Your task to perform on an android device: Open sound settings Image 0: 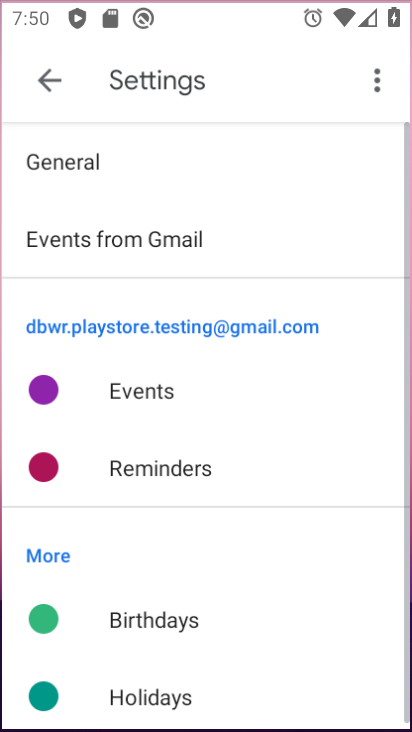
Step 0: drag from (291, 665) to (343, 218)
Your task to perform on an android device: Open sound settings Image 1: 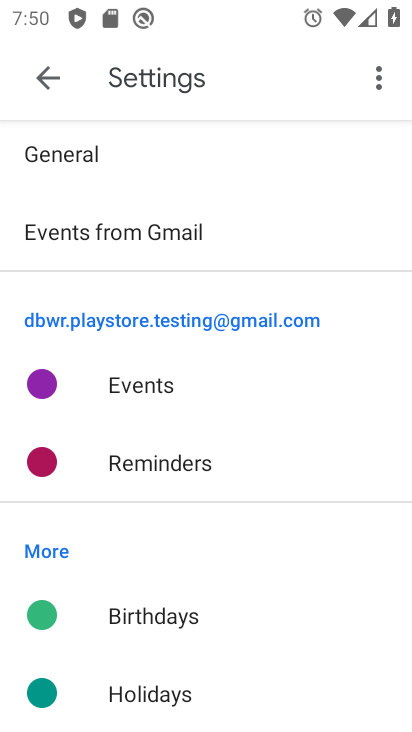
Step 1: click (54, 82)
Your task to perform on an android device: Open sound settings Image 2: 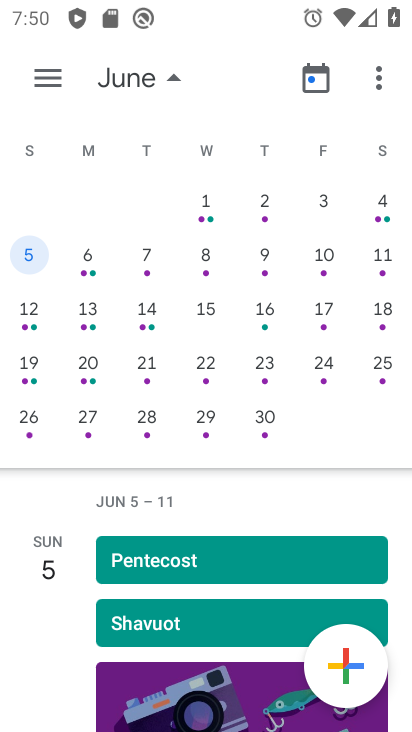
Step 2: press home button
Your task to perform on an android device: Open sound settings Image 3: 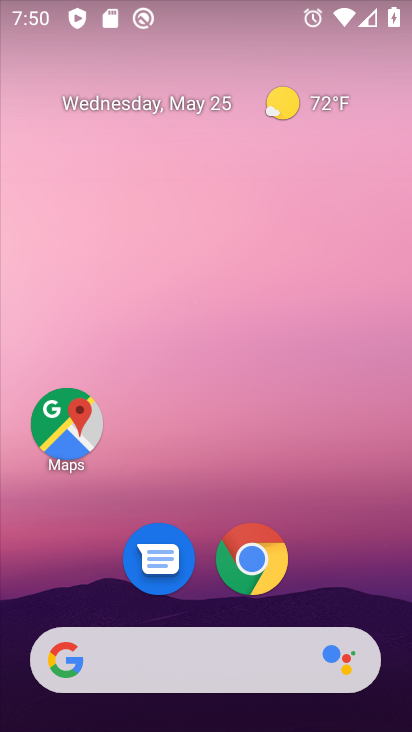
Step 3: drag from (274, 606) to (356, 45)
Your task to perform on an android device: Open sound settings Image 4: 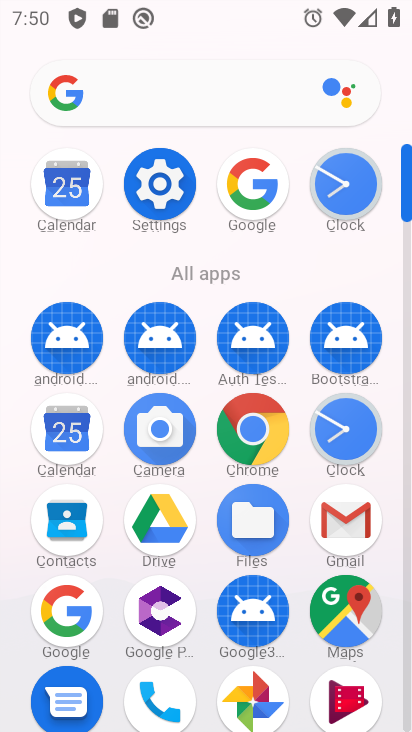
Step 4: click (168, 191)
Your task to perform on an android device: Open sound settings Image 5: 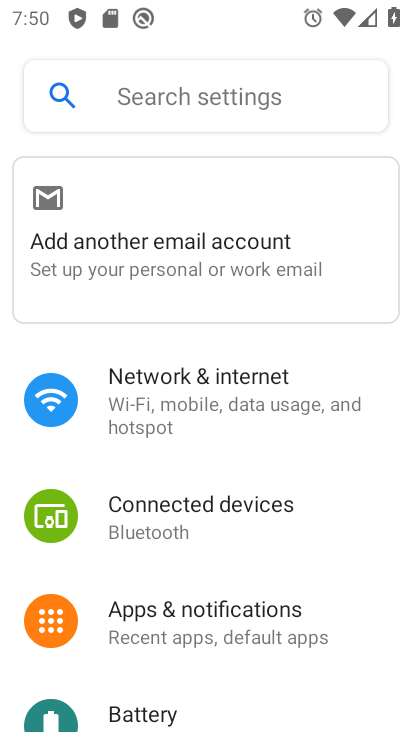
Step 5: drag from (218, 592) to (288, 220)
Your task to perform on an android device: Open sound settings Image 6: 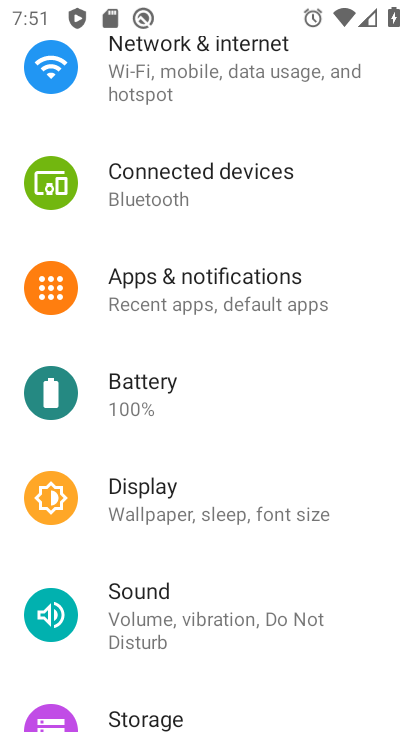
Step 6: drag from (222, 559) to (300, 283)
Your task to perform on an android device: Open sound settings Image 7: 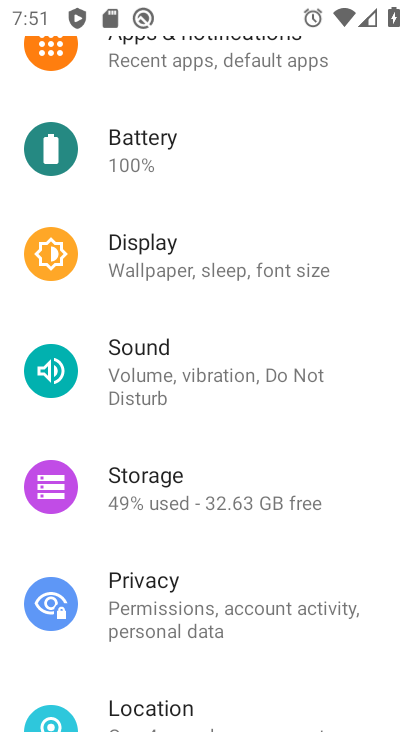
Step 7: click (257, 386)
Your task to perform on an android device: Open sound settings Image 8: 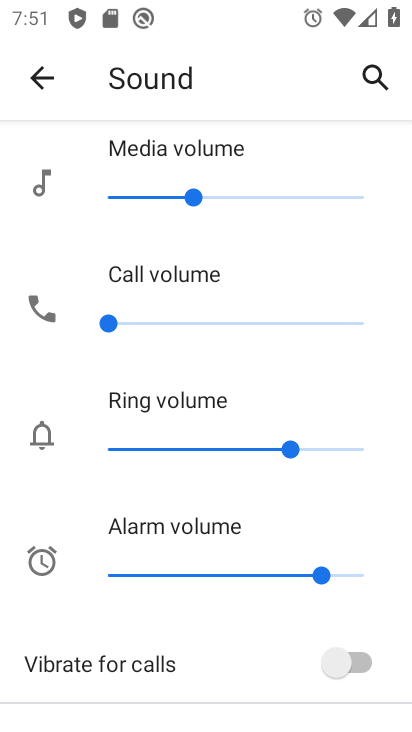
Step 8: task complete